Your task to perform on an android device: What's the weather going to be tomorrow? Image 0: 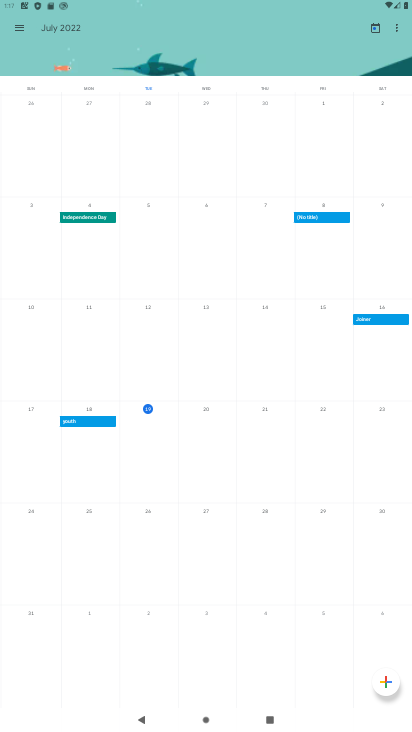
Step 0: press home button
Your task to perform on an android device: What's the weather going to be tomorrow? Image 1: 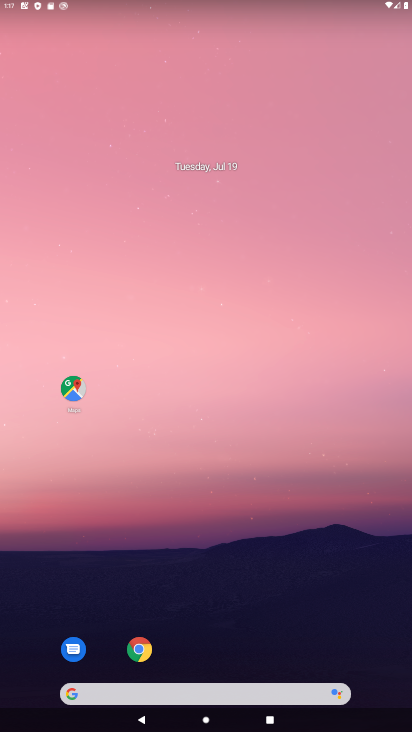
Step 1: click (237, 693)
Your task to perform on an android device: What's the weather going to be tomorrow? Image 2: 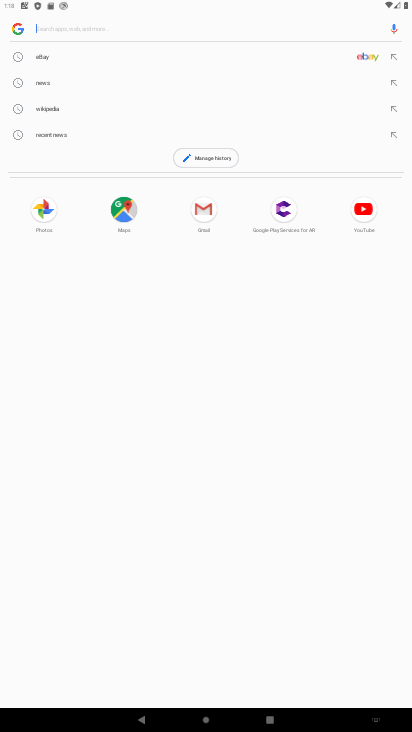
Step 2: type "What's the weather going to be tomorrow?"
Your task to perform on an android device: What's the weather going to be tomorrow? Image 3: 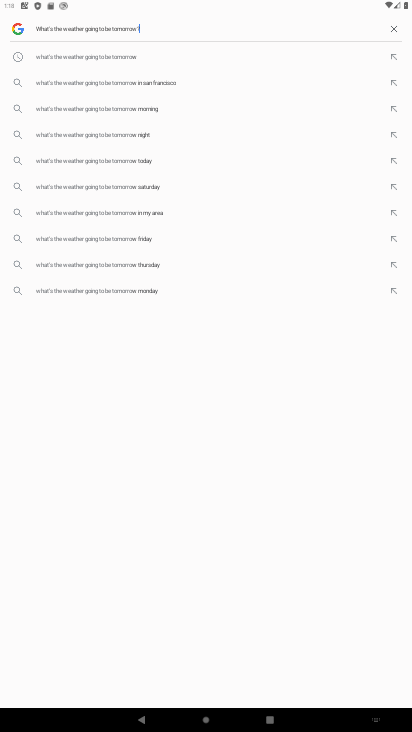
Step 3: press enter
Your task to perform on an android device: What's the weather going to be tomorrow? Image 4: 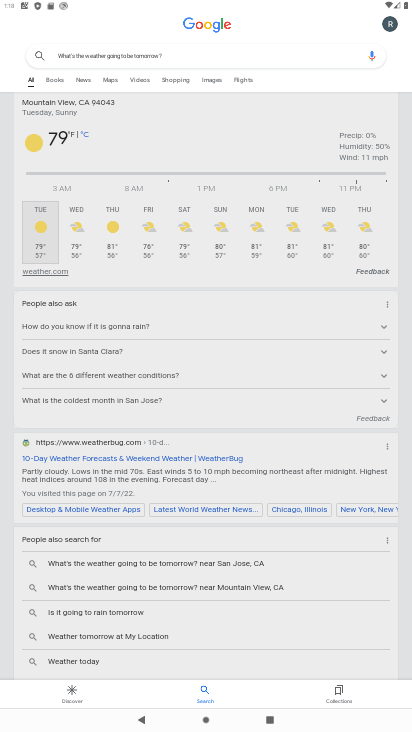
Step 4: task complete